Your task to perform on an android device: Find coffee shops on Maps Image 0: 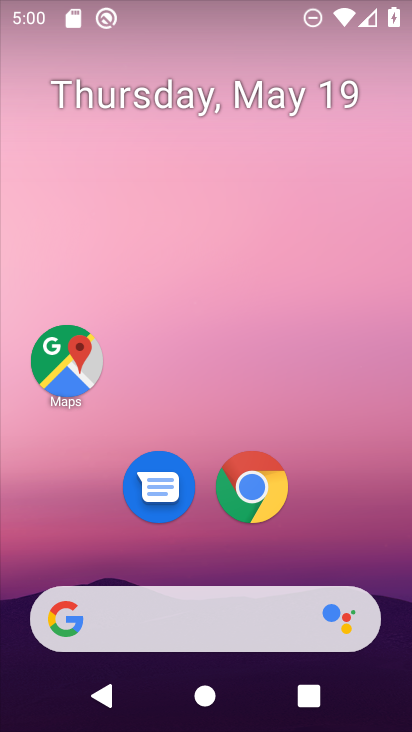
Step 0: click (64, 363)
Your task to perform on an android device: Find coffee shops on Maps Image 1: 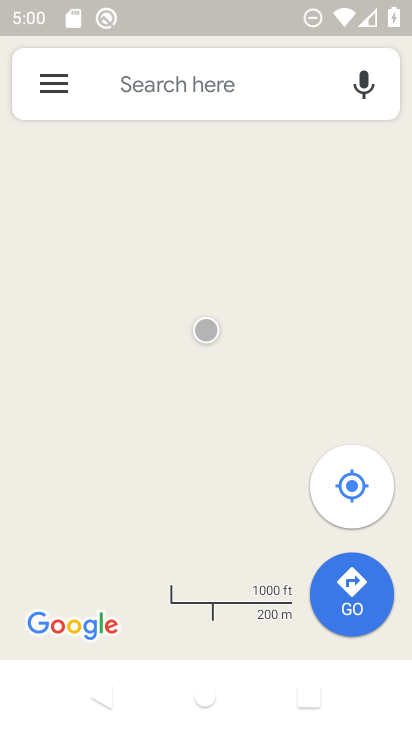
Step 1: click (156, 104)
Your task to perform on an android device: Find coffee shops on Maps Image 2: 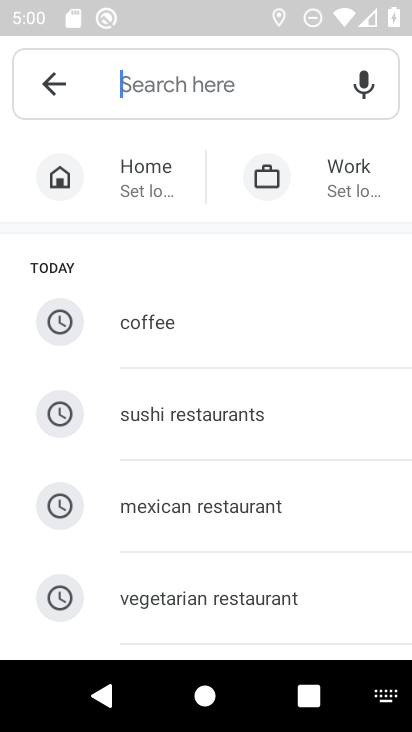
Step 2: type "coffee shops"
Your task to perform on an android device: Find coffee shops on Maps Image 3: 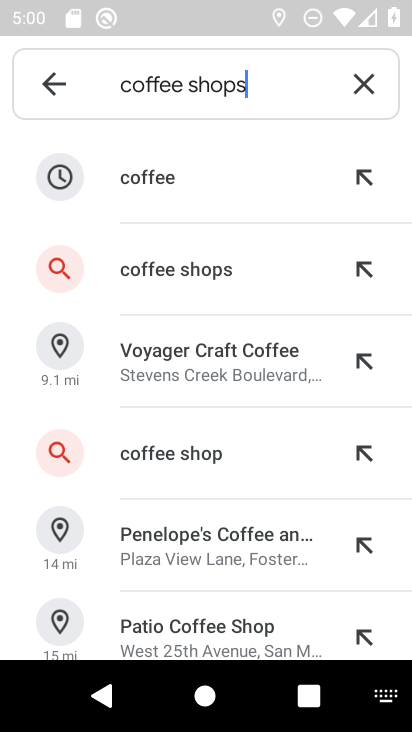
Step 3: click (220, 274)
Your task to perform on an android device: Find coffee shops on Maps Image 4: 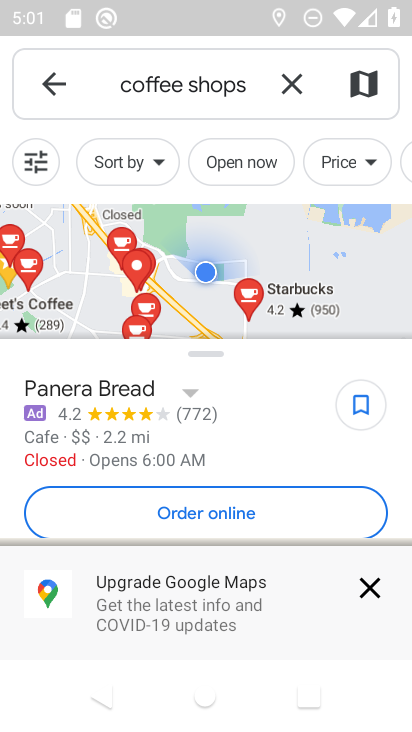
Step 4: click (373, 592)
Your task to perform on an android device: Find coffee shops on Maps Image 5: 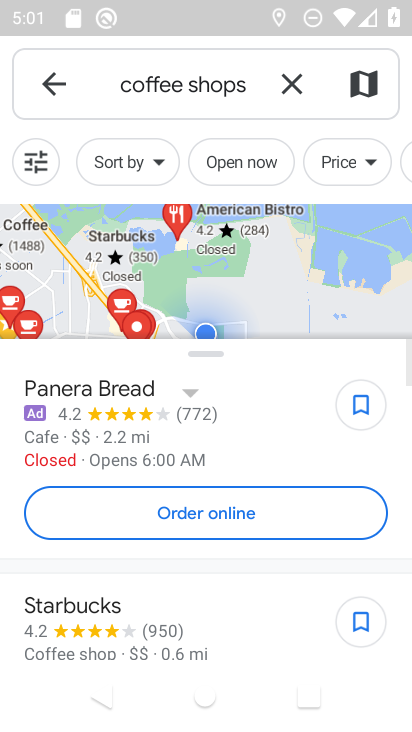
Step 5: task complete